Your task to perform on an android device: Open privacy settings Image 0: 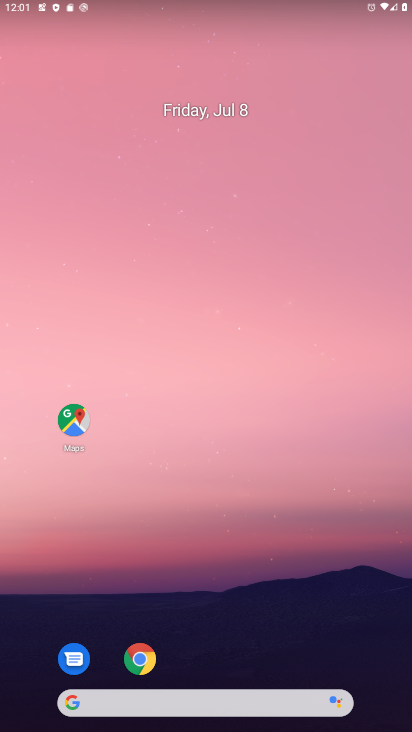
Step 0: drag from (218, 602) to (174, 182)
Your task to perform on an android device: Open privacy settings Image 1: 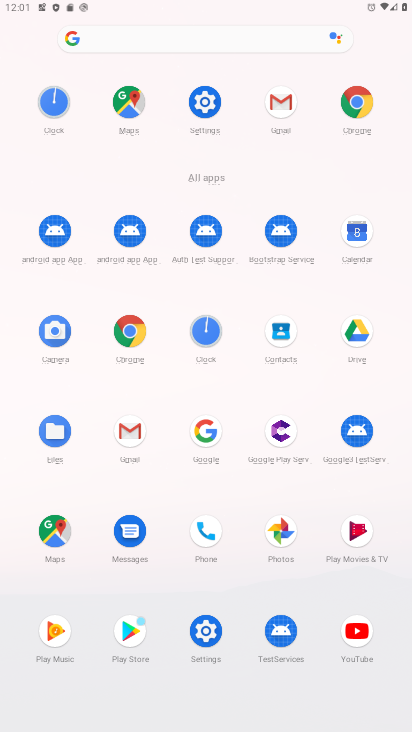
Step 1: click (200, 102)
Your task to perform on an android device: Open privacy settings Image 2: 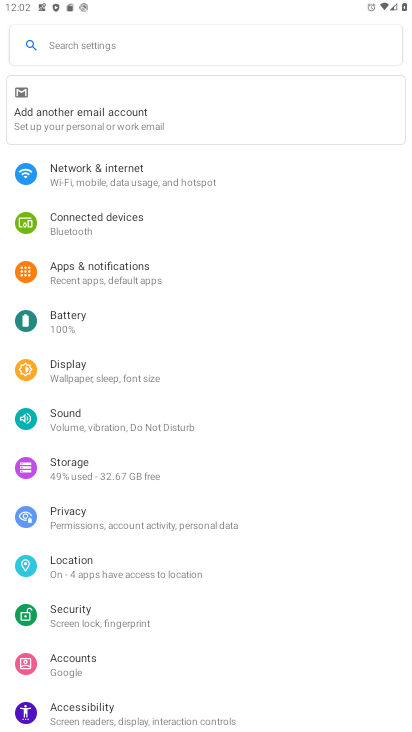
Step 2: click (71, 508)
Your task to perform on an android device: Open privacy settings Image 3: 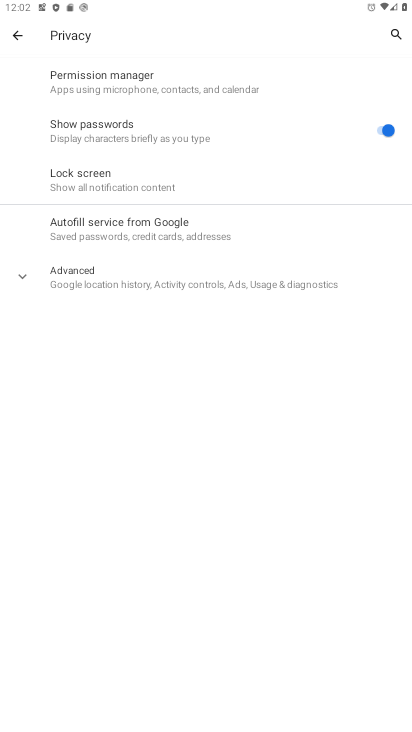
Step 3: task complete